Your task to perform on an android device: What's a good restaurant in Portland? Image 0: 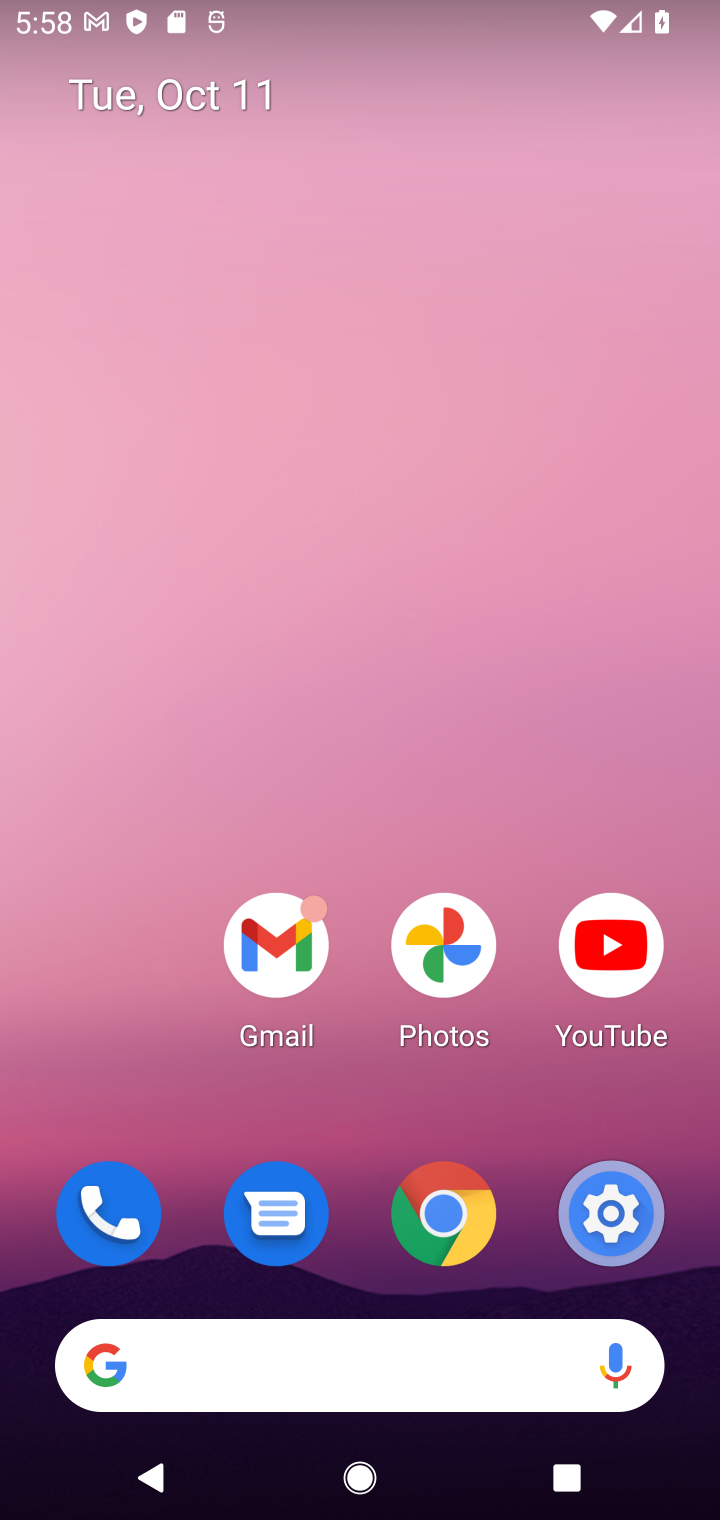
Step 0: drag from (386, 804) to (365, 198)
Your task to perform on an android device: What's a good restaurant in Portland? Image 1: 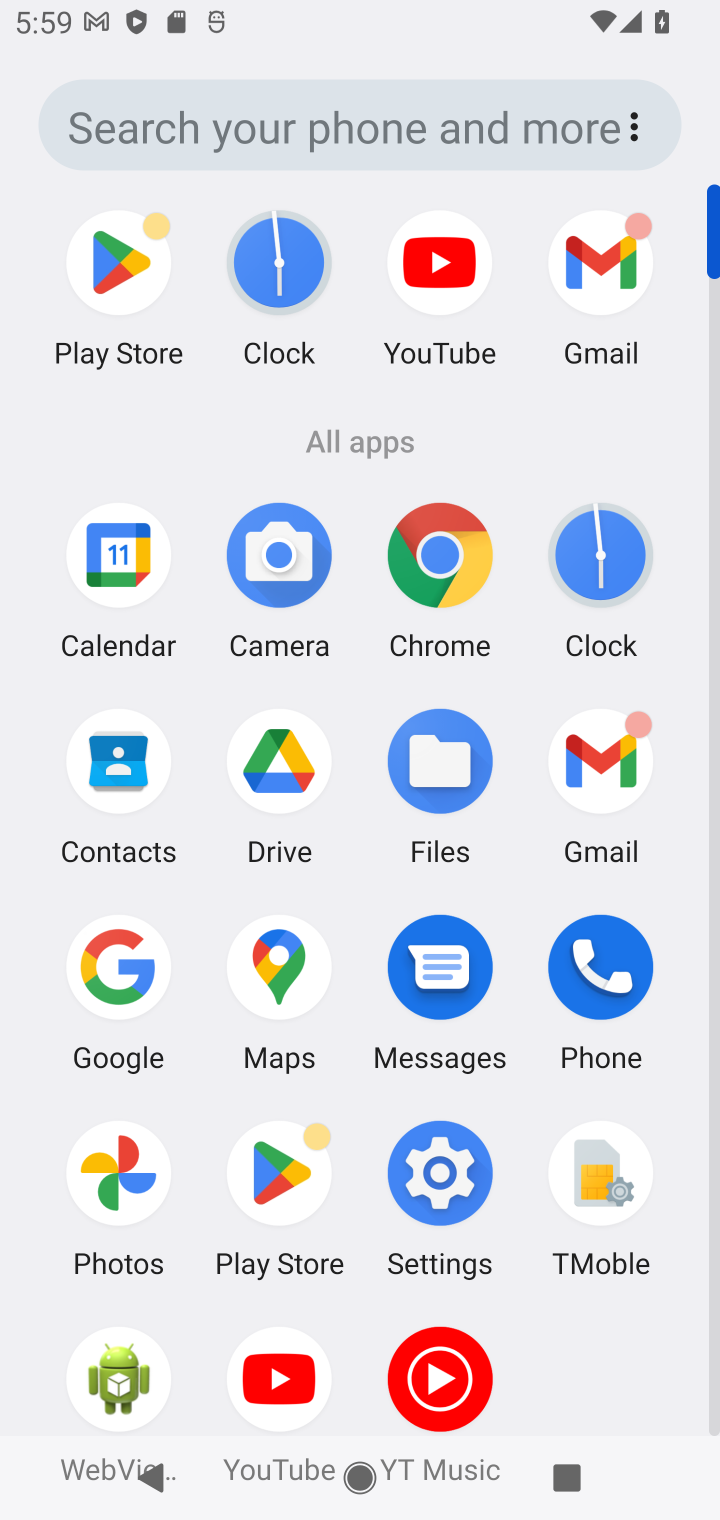
Step 1: click (120, 975)
Your task to perform on an android device: What's a good restaurant in Portland? Image 2: 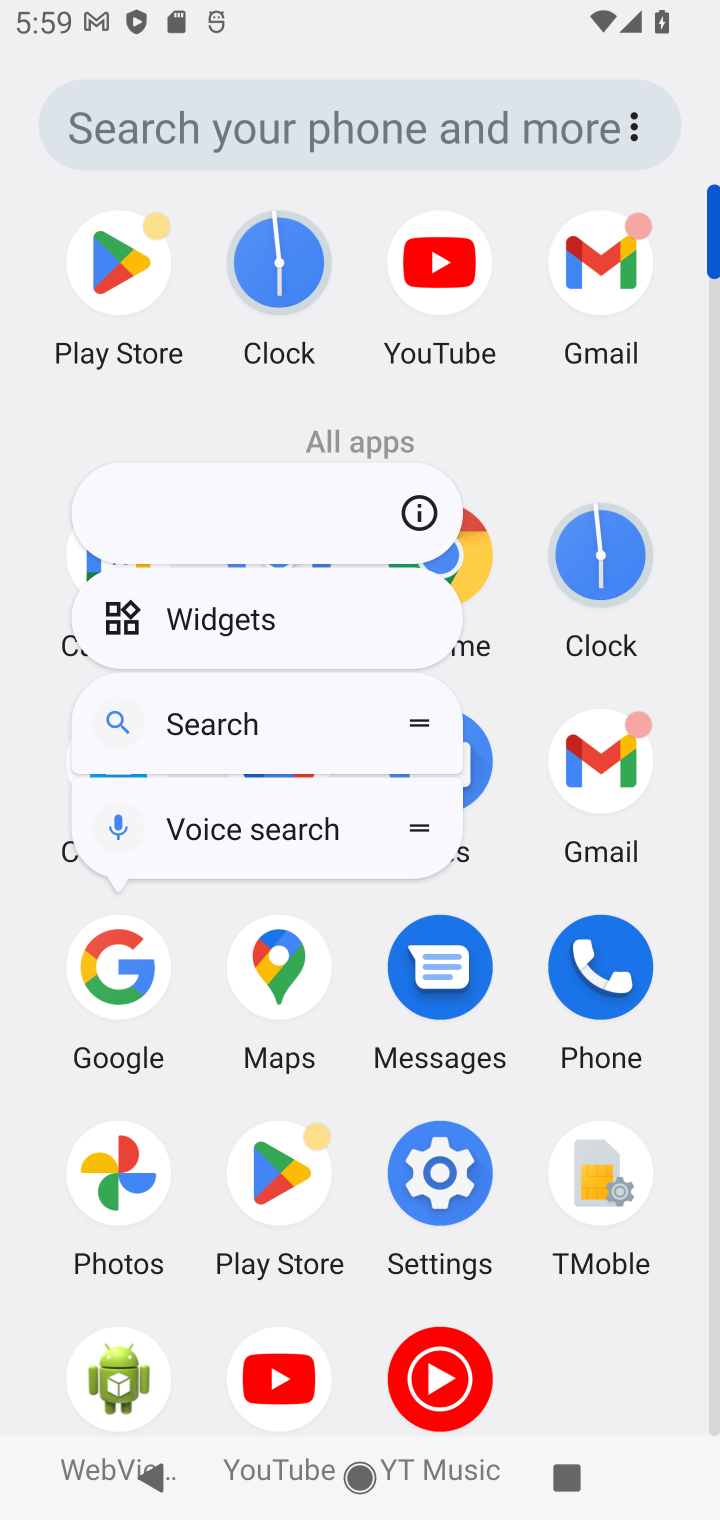
Step 2: click (120, 951)
Your task to perform on an android device: What's a good restaurant in Portland? Image 3: 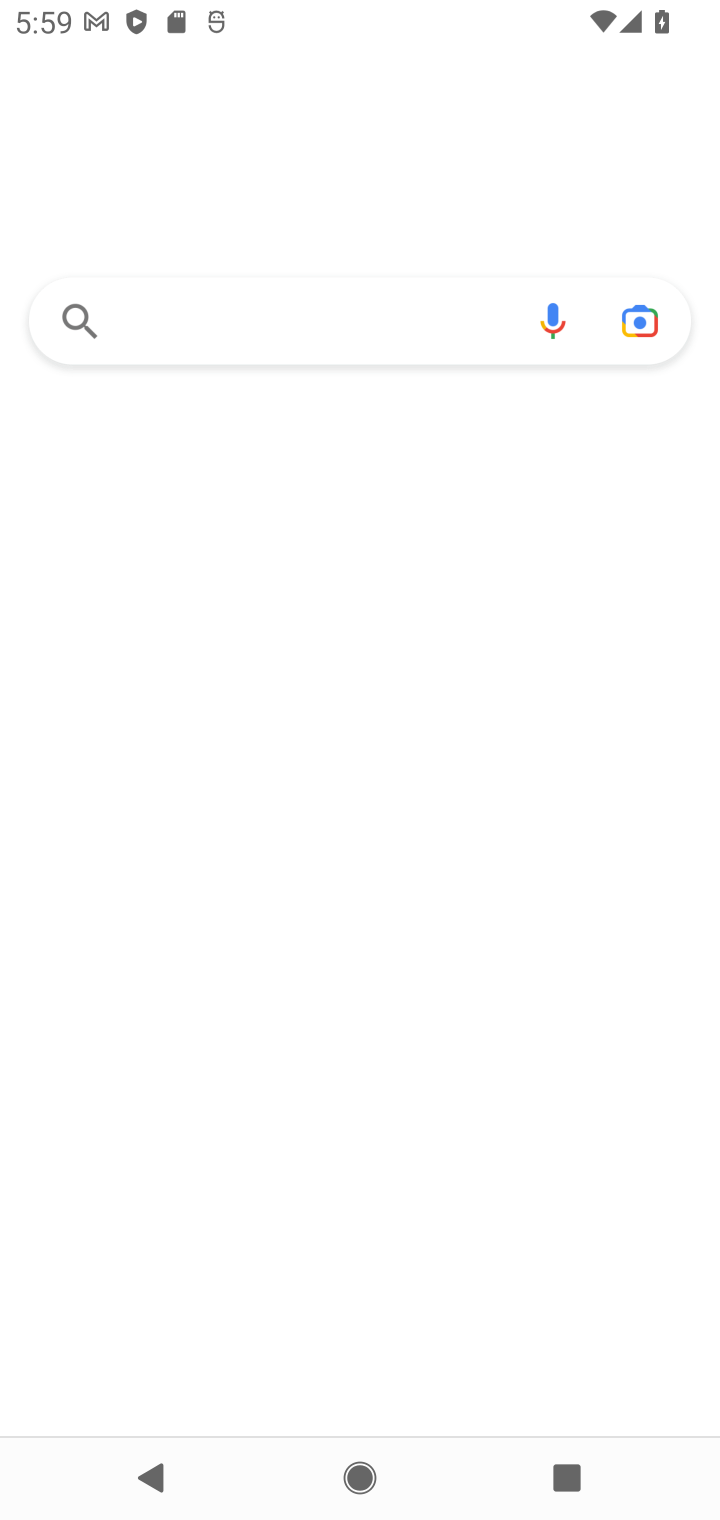
Step 3: click (120, 951)
Your task to perform on an android device: What's a good restaurant in Portland? Image 4: 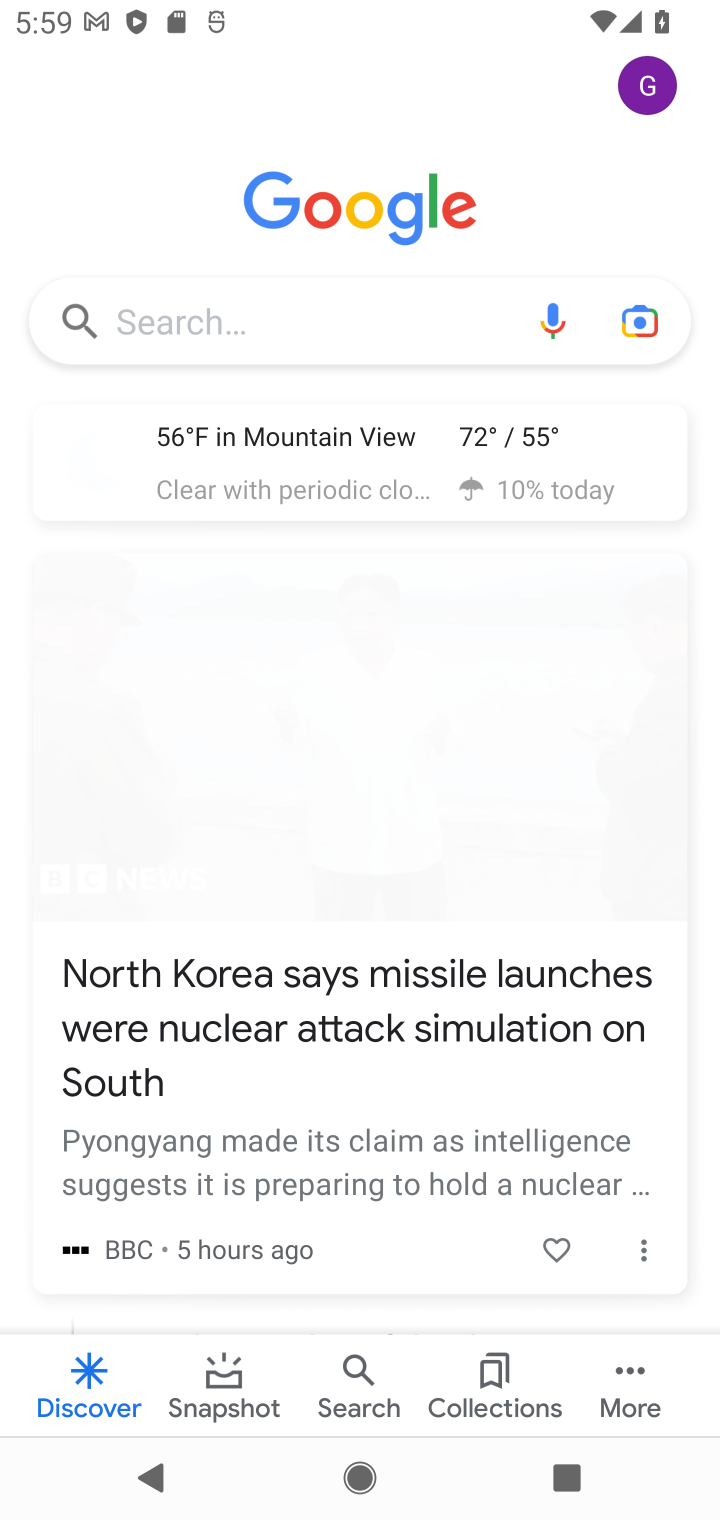
Step 4: click (279, 336)
Your task to perform on an android device: What's a good restaurant in Portland? Image 5: 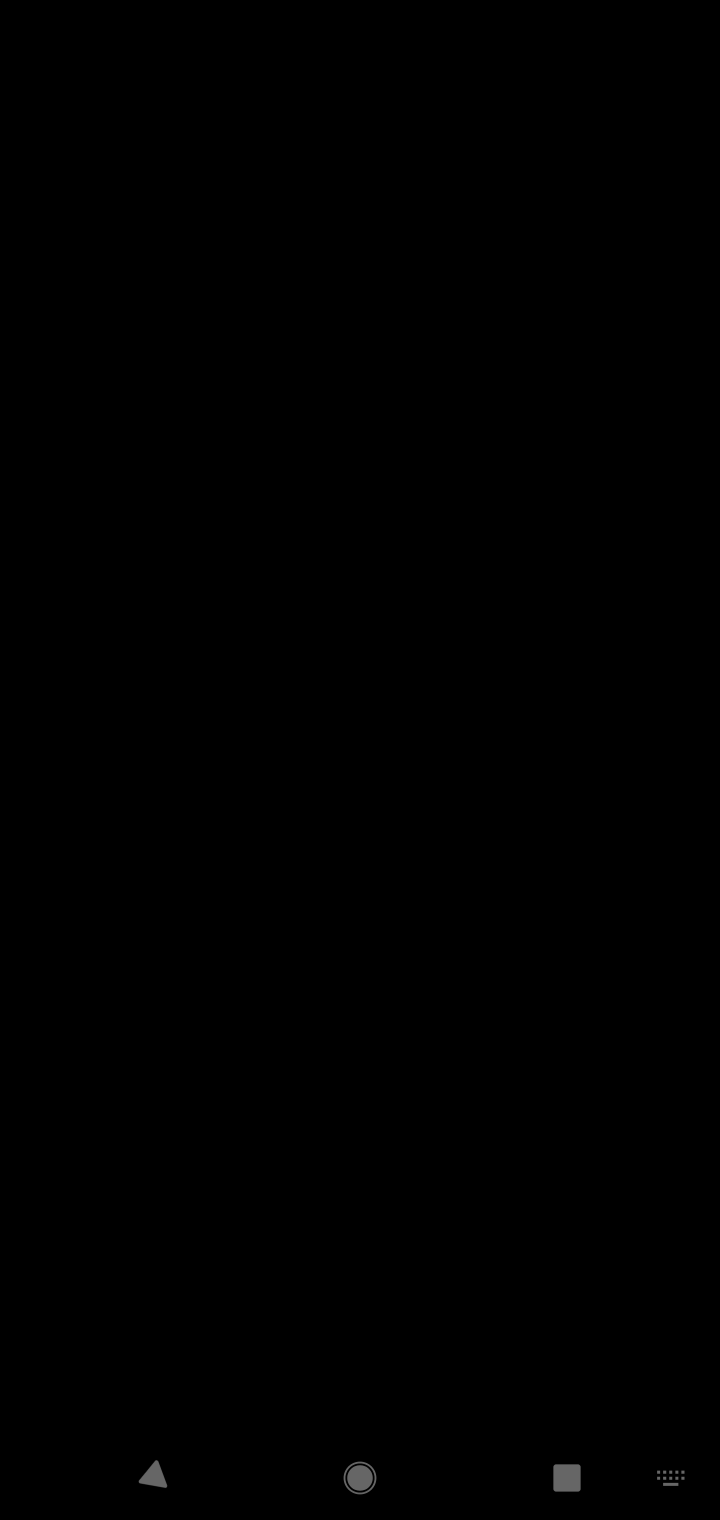
Step 5: type "What's a good restaurant in Portland? "
Your task to perform on an android device: What's a good restaurant in Portland? Image 6: 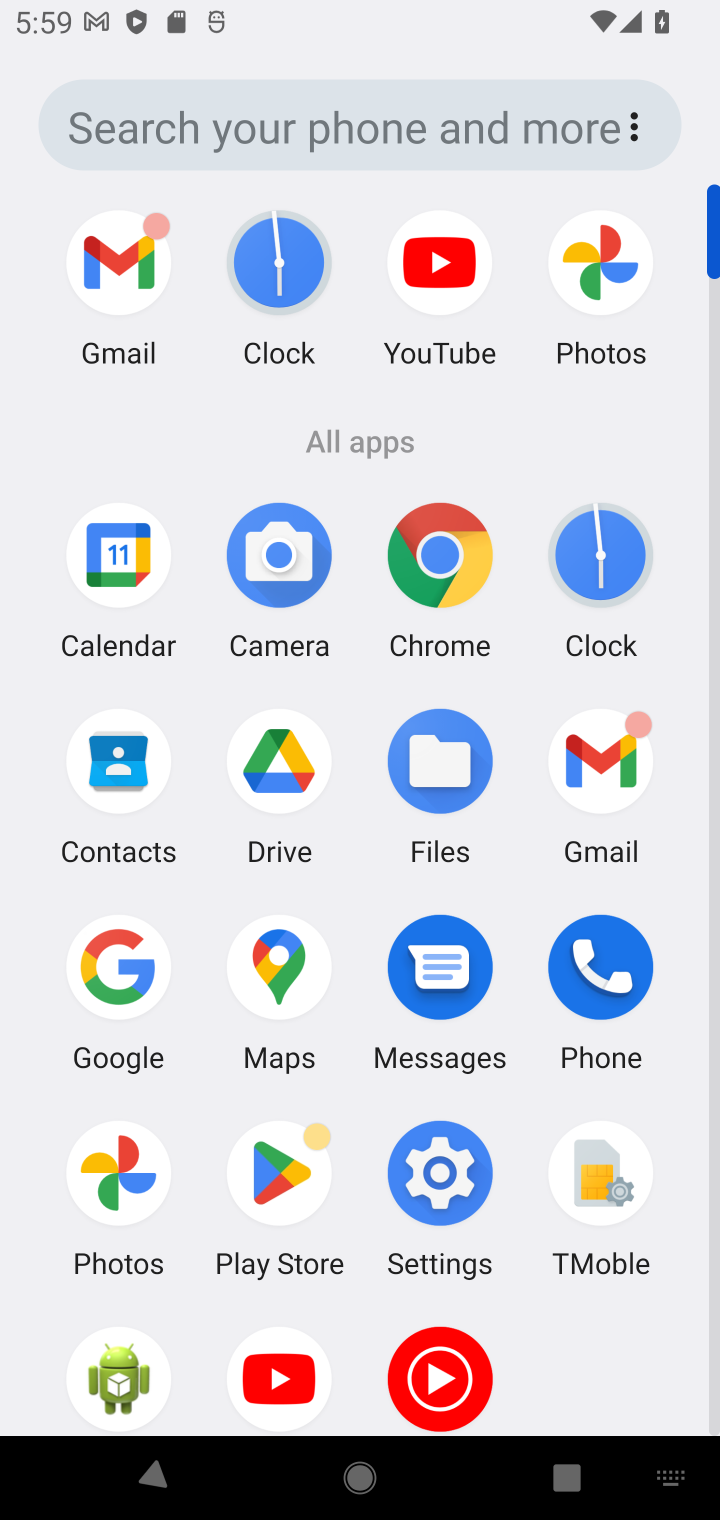
Step 6: click (110, 976)
Your task to perform on an android device: What's a good restaurant in Portland? Image 7: 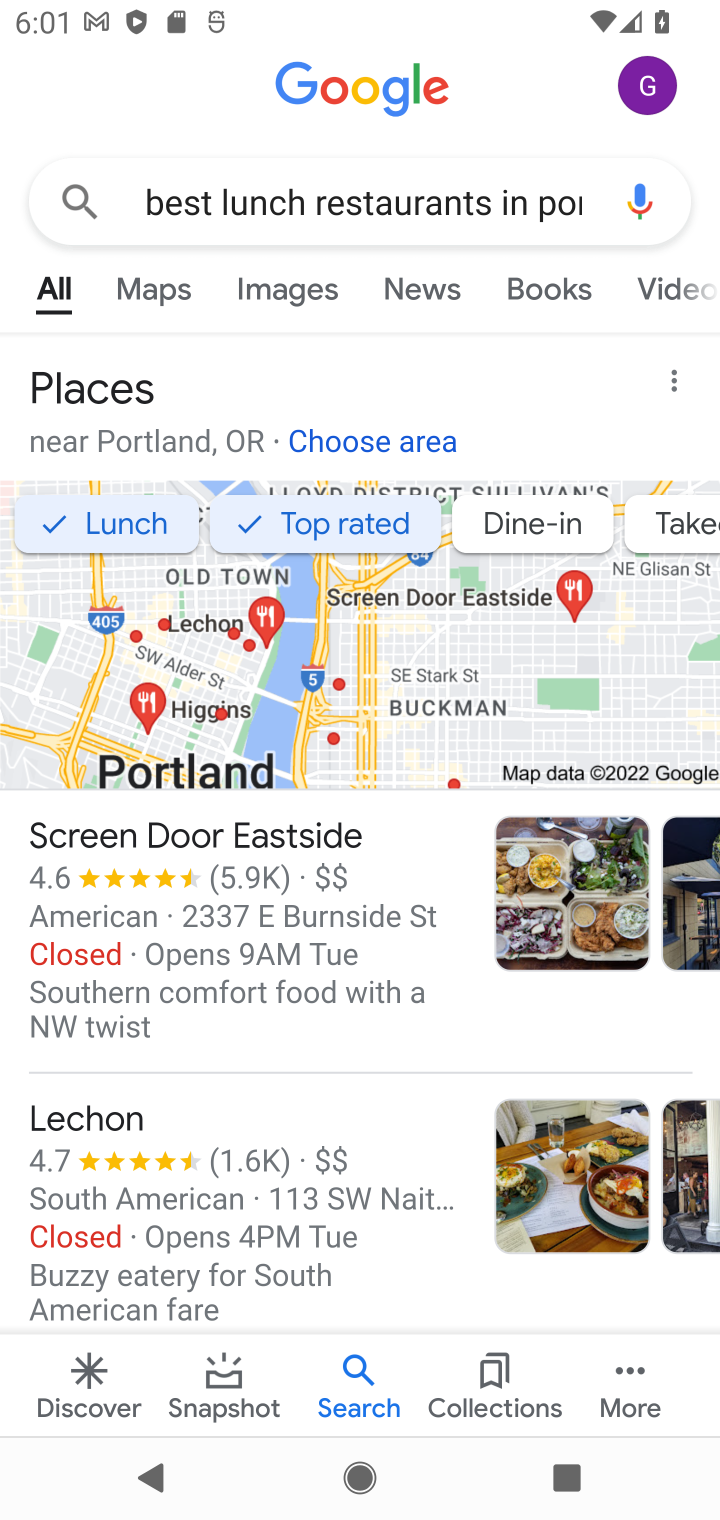
Step 7: drag from (348, 1248) to (362, 386)
Your task to perform on an android device: What's a good restaurant in Portland? Image 8: 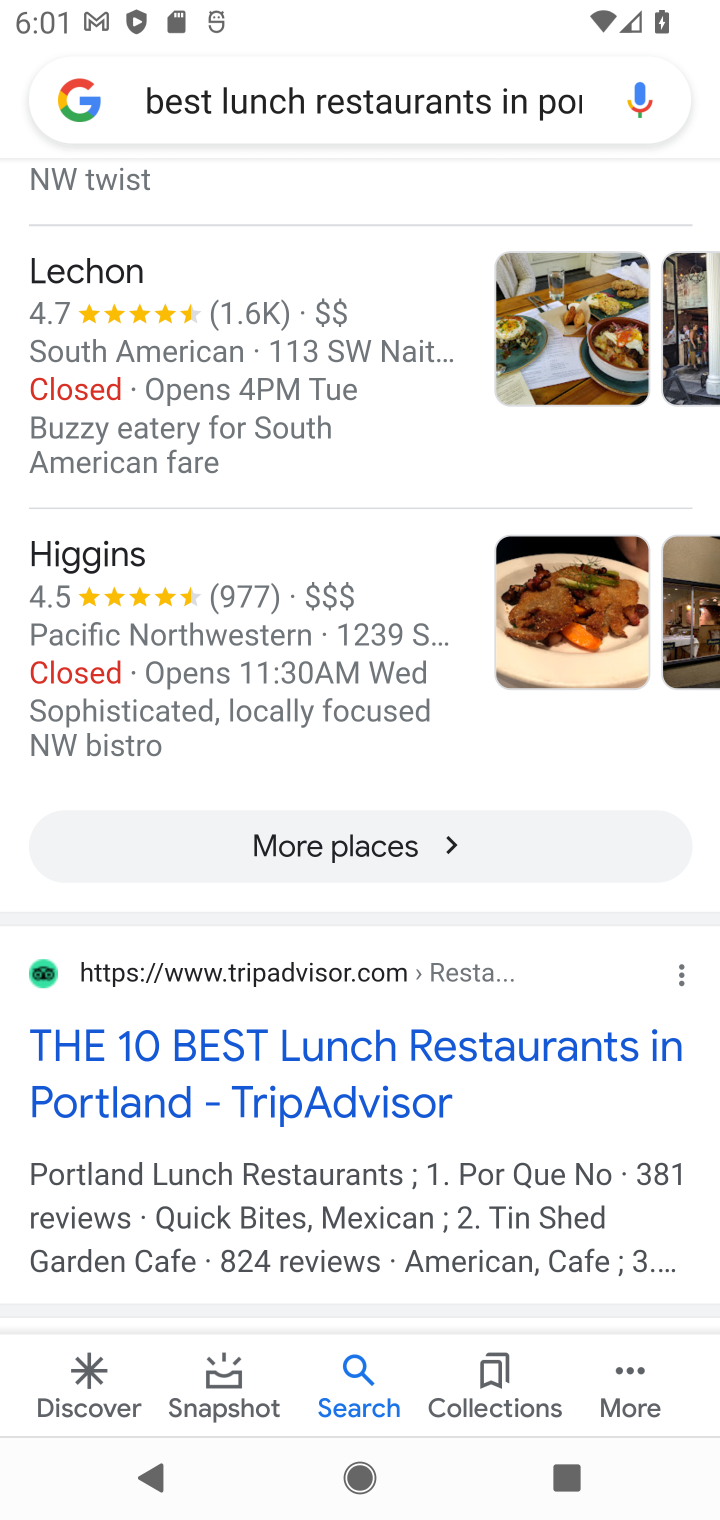
Step 8: click (318, 1052)
Your task to perform on an android device: What's a good restaurant in Portland? Image 9: 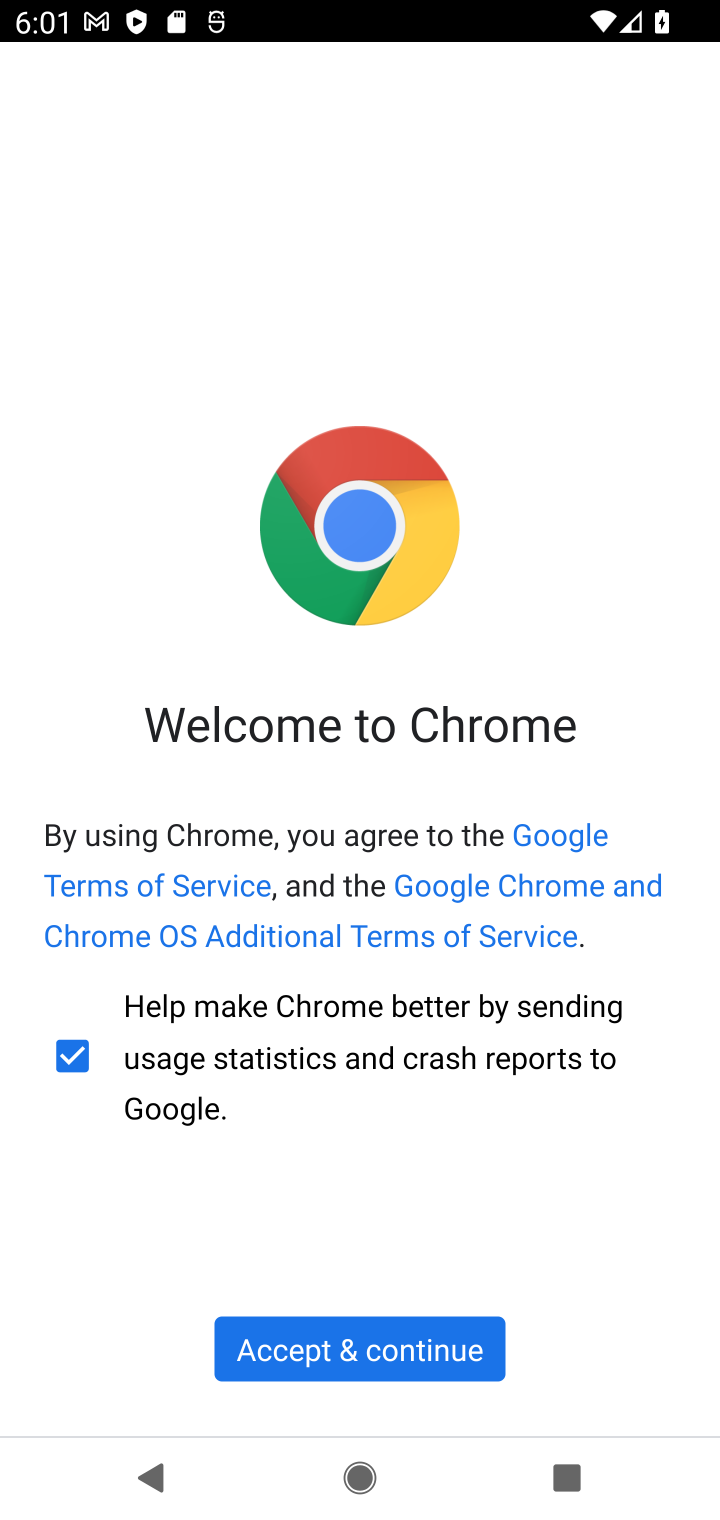
Step 9: click (286, 1335)
Your task to perform on an android device: What's a good restaurant in Portland? Image 10: 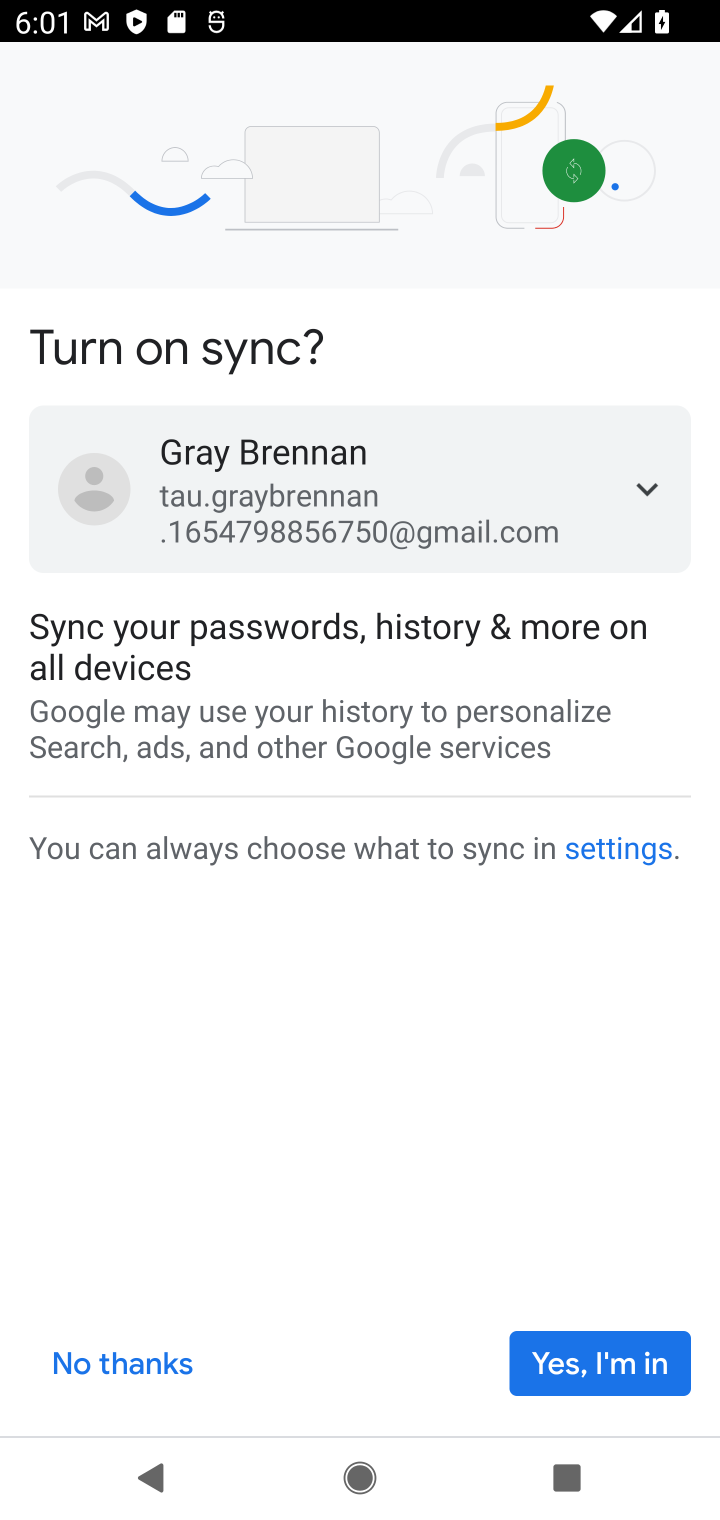
Step 10: click (600, 1353)
Your task to perform on an android device: What's a good restaurant in Portland? Image 11: 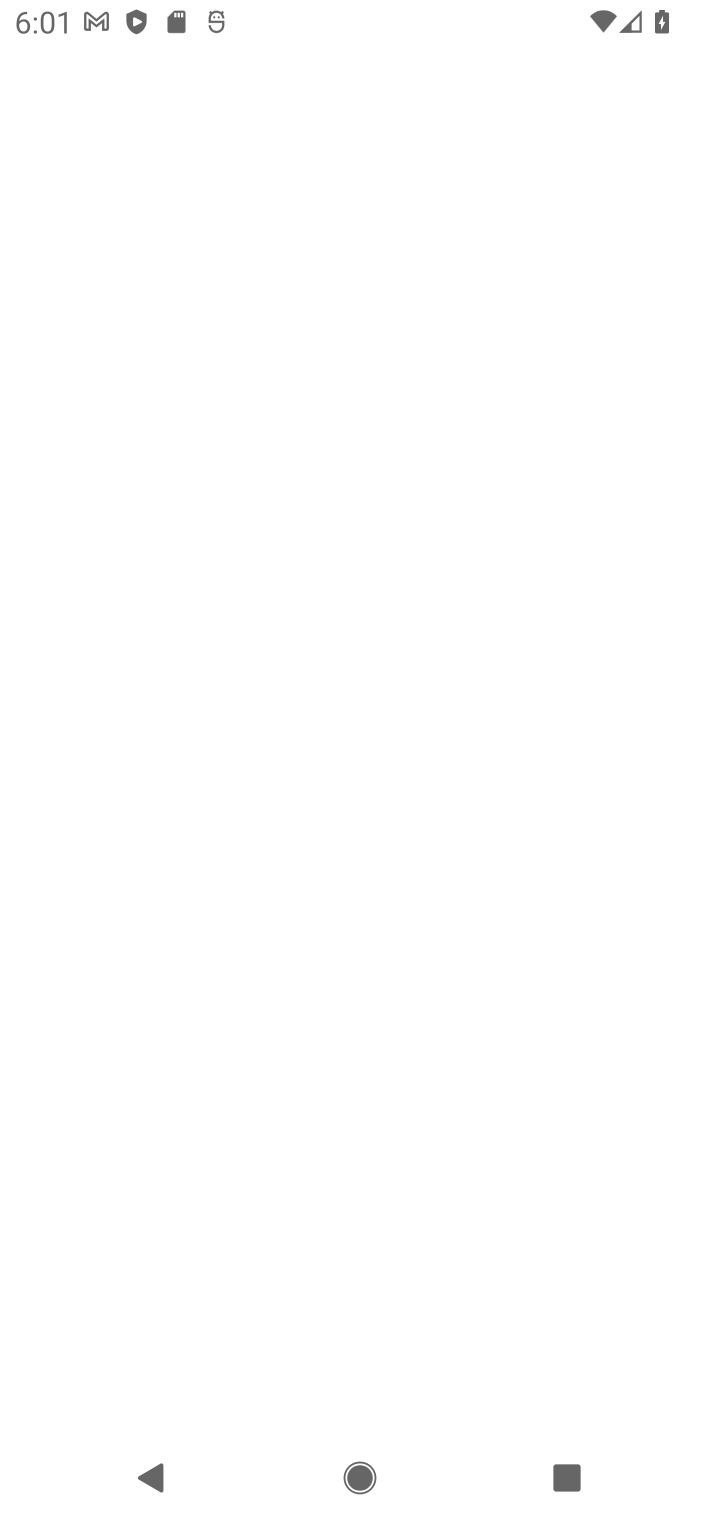
Step 11: task complete